Your task to perform on an android device: Open Android settings Image 0: 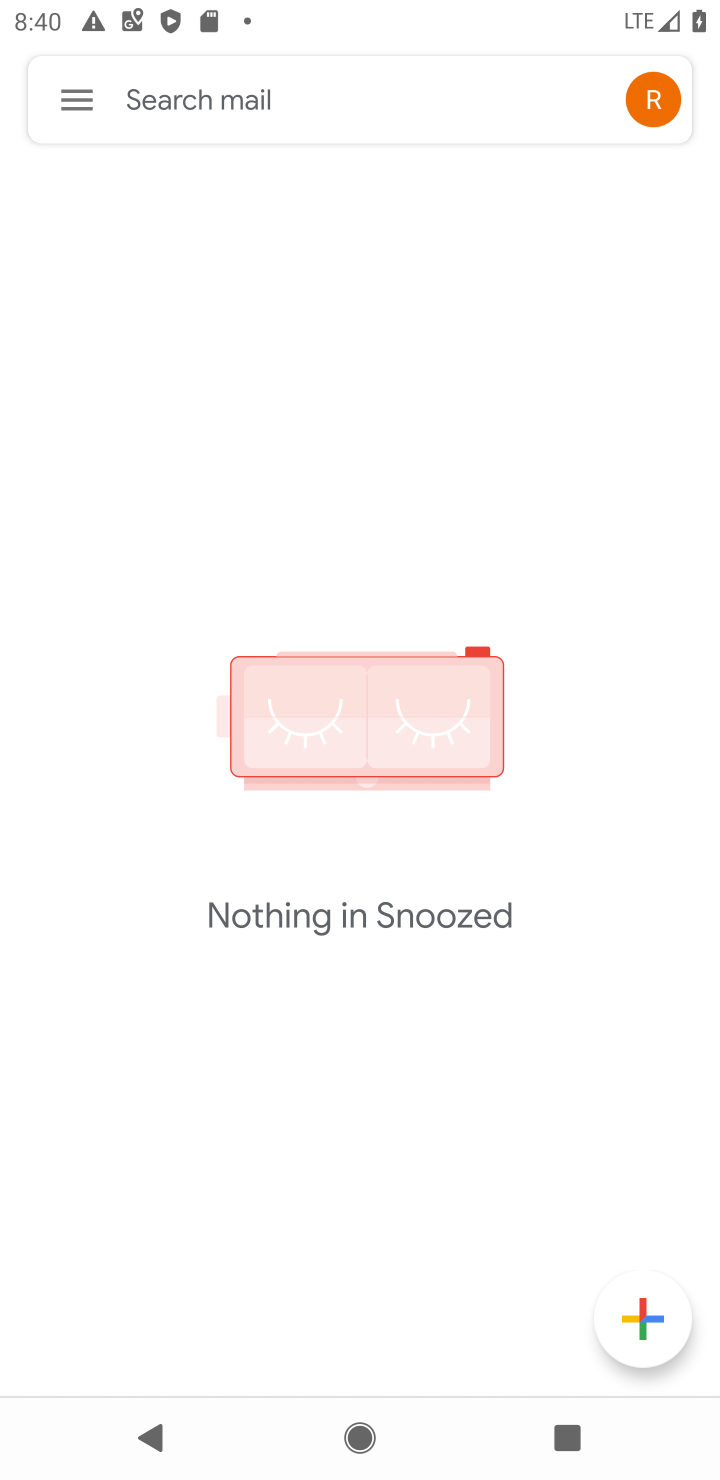
Step 0: press back button
Your task to perform on an android device: Open Android settings Image 1: 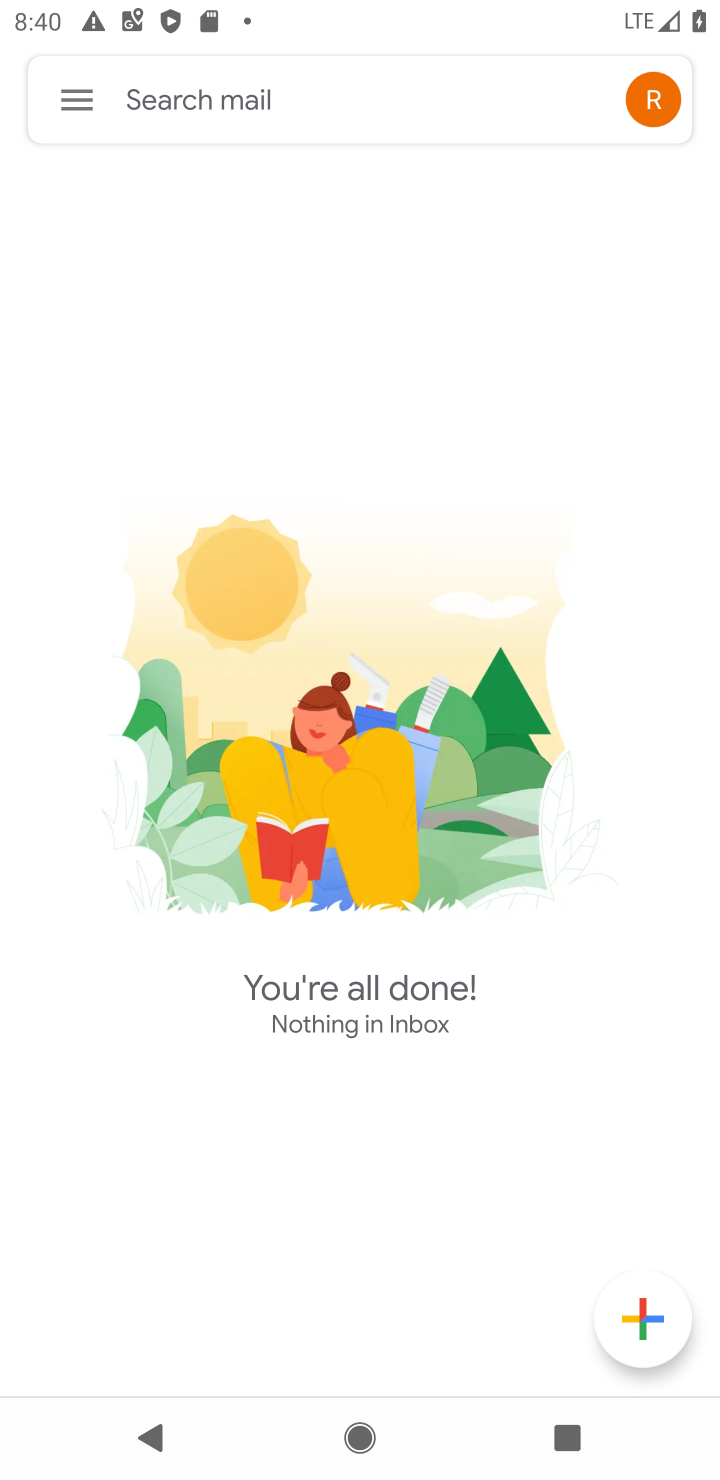
Step 1: press back button
Your task to perform on an android device: Open Android settings Image 2: 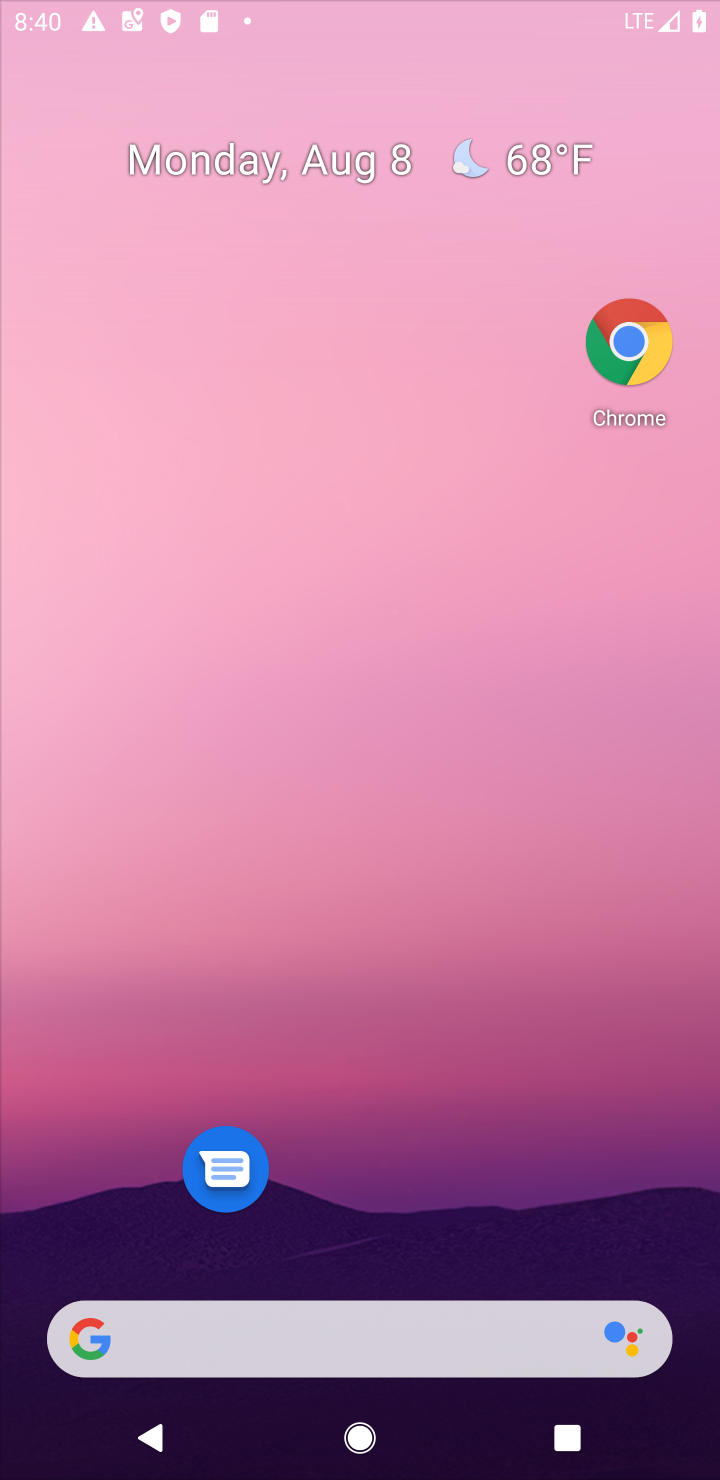
Step 2: drag from (527, 1147) to (572, 128)
Your task to perform on an android device: Open Android settings Image 3: 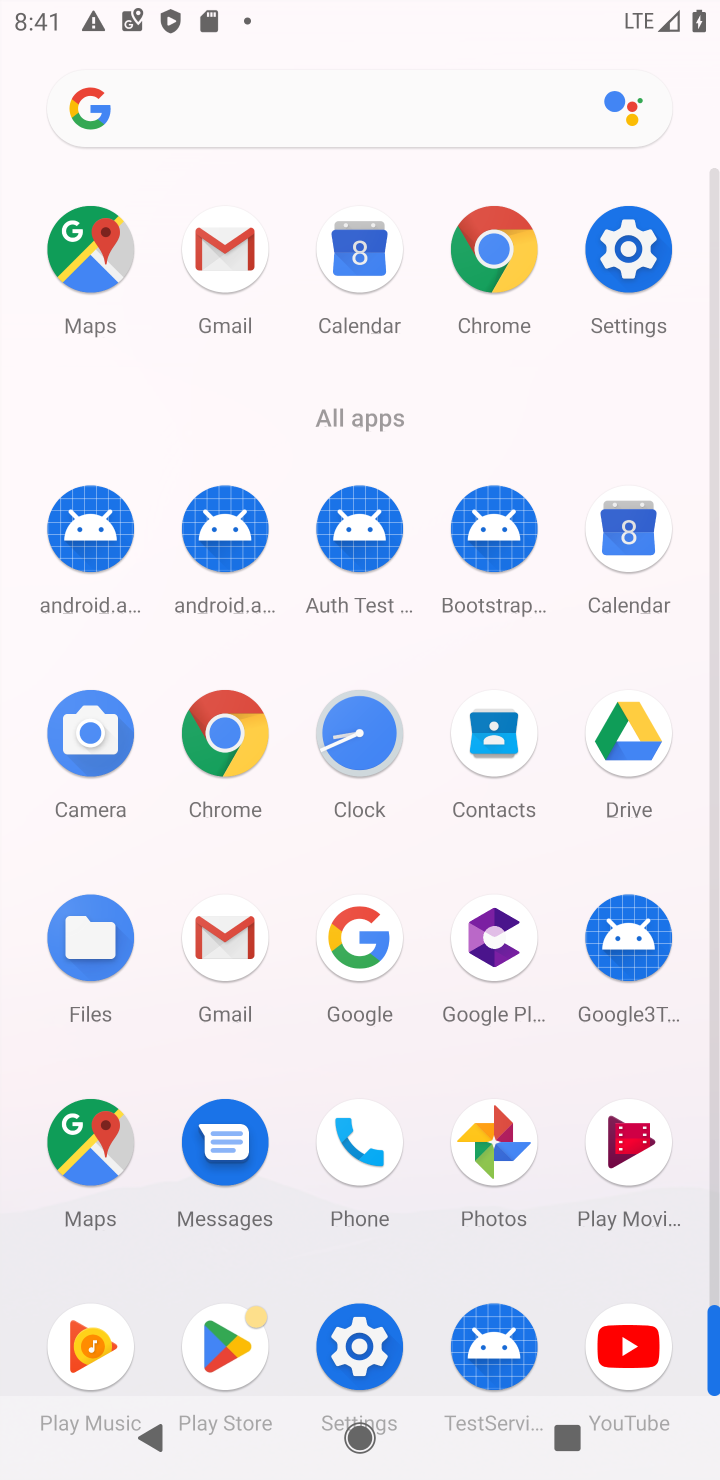
Step 3: click (652, 238)
Your task to perform on an android device: Open Android settings Image 4: 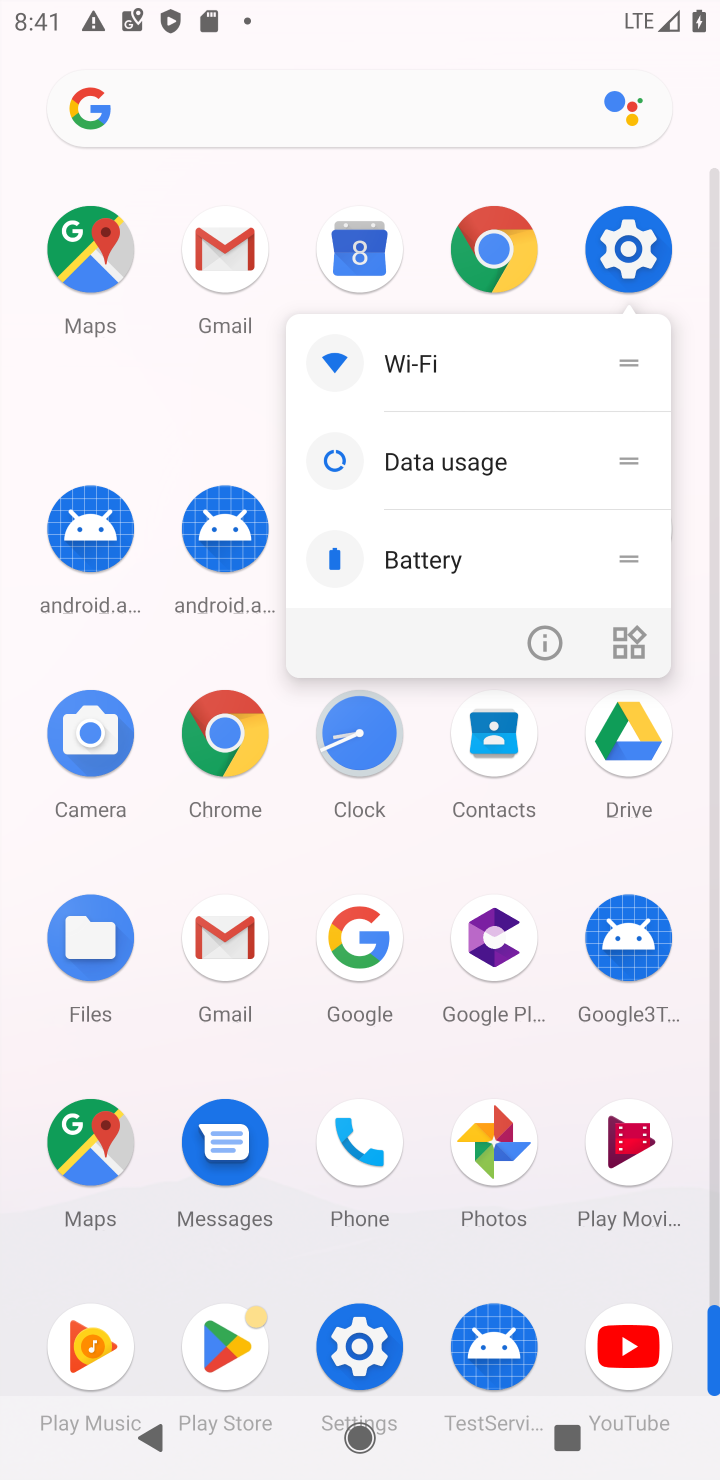
Step 4: click (650, 222)
Your task to perform on an android device: Open Android settings Image 5: 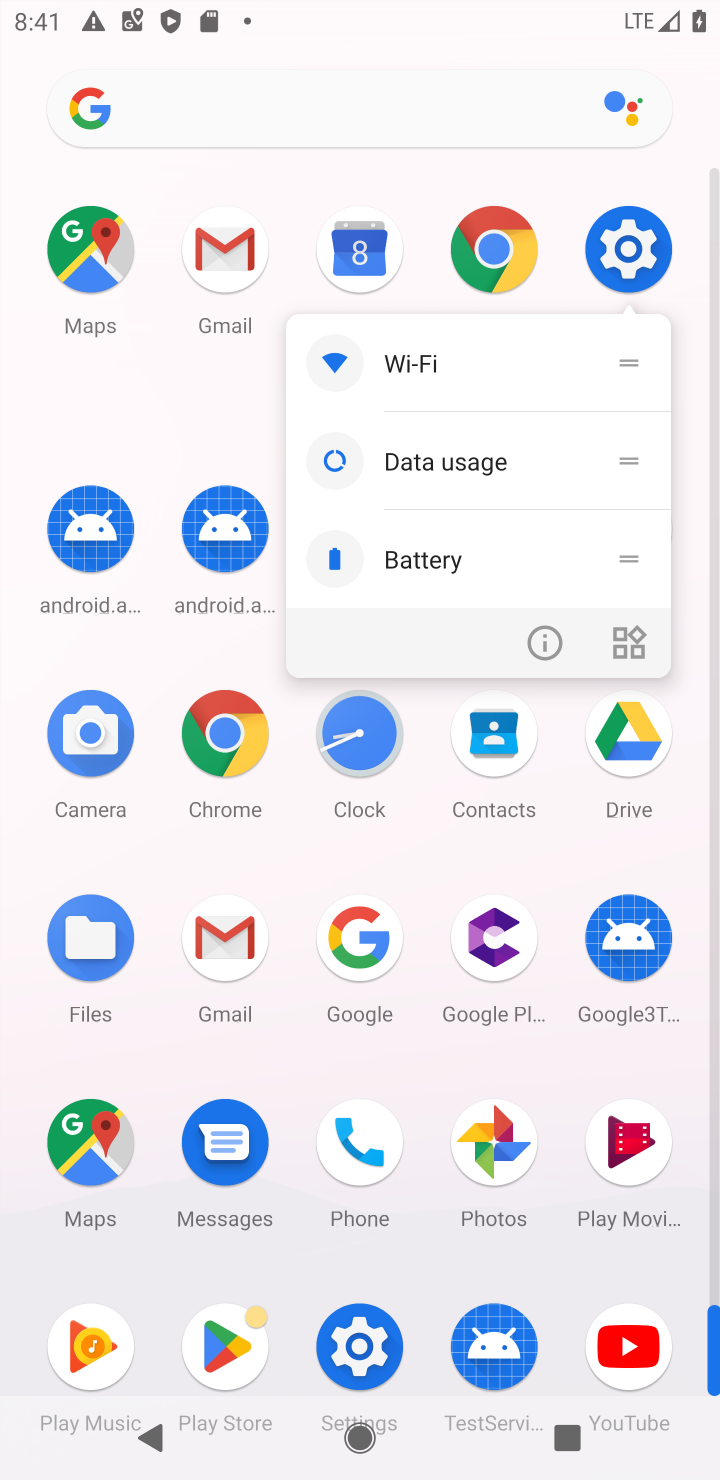
Step 5: click (602, 245)
Your task to perform on an android device: Open Android settings Image 6: 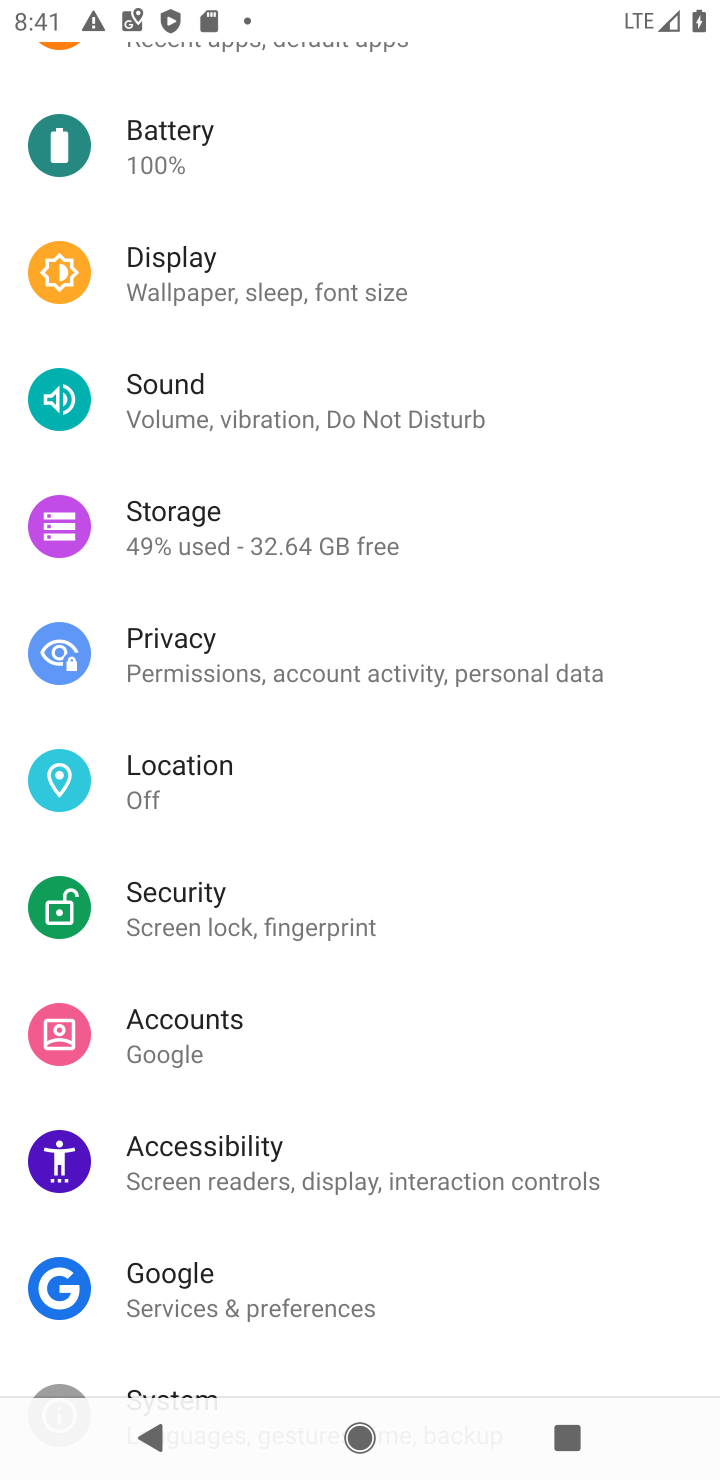
Step 6: drag from (443, 1189) to (635, 0)
Your task to perform on an android device: Open Android settings Image 7: 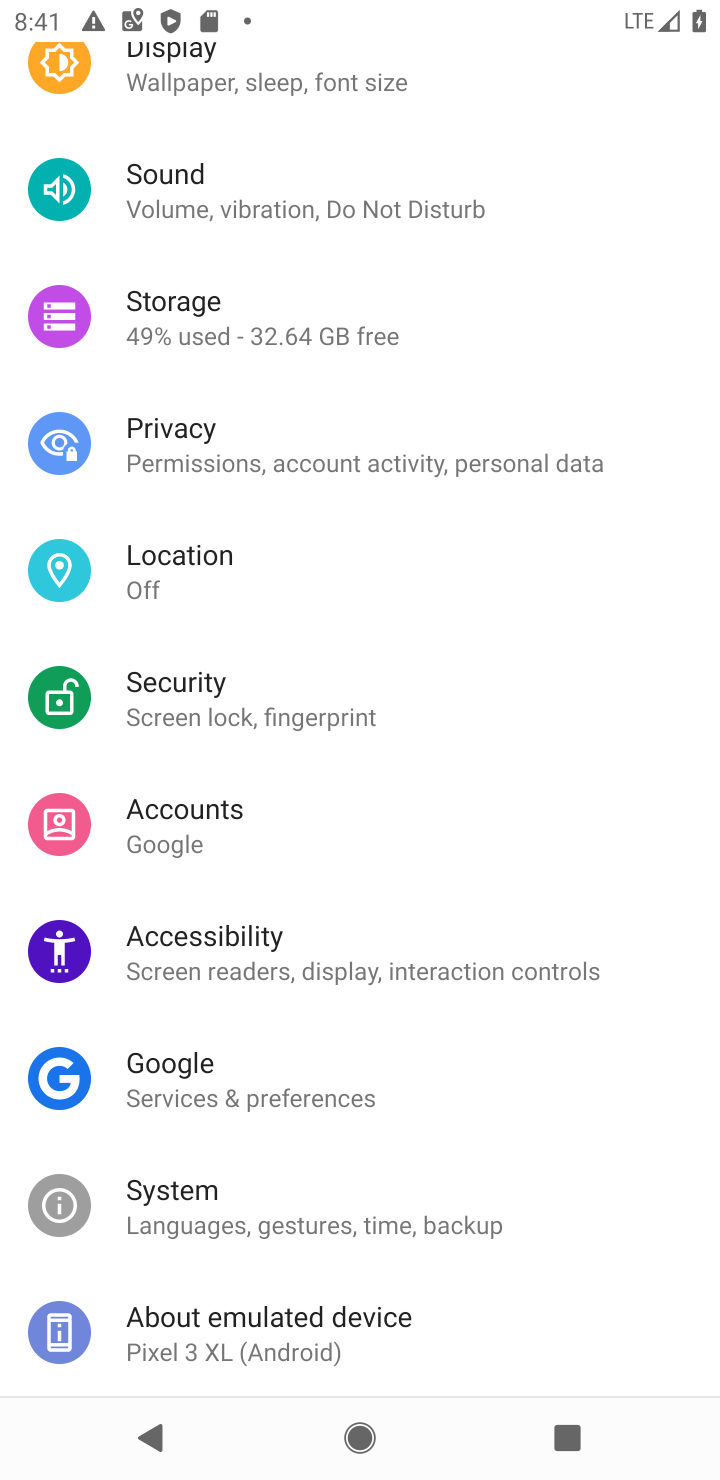
Step 7: click (322, 1348)
Your task to perform on an android device: Open Android settings Image 8: 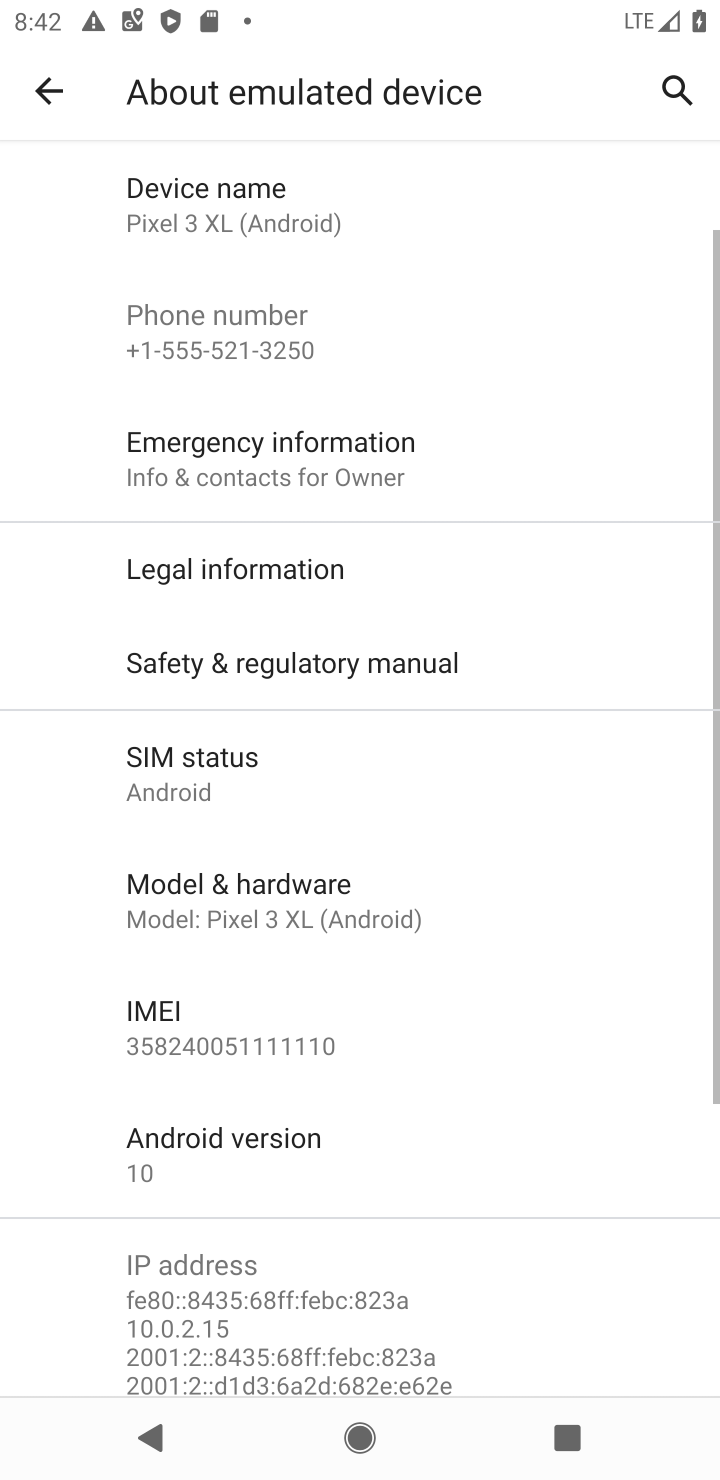
Step 8: task complete